Your task to perform on an android device: Go to settings Image 0: 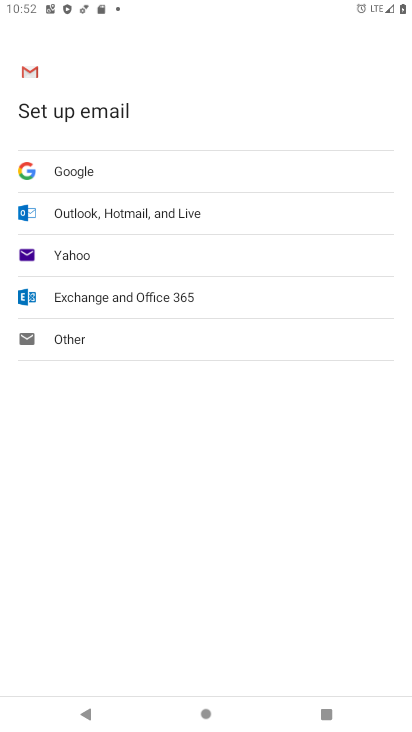
Step 0: press home button
Your task to perform on an android device: Go to settings Image 1: 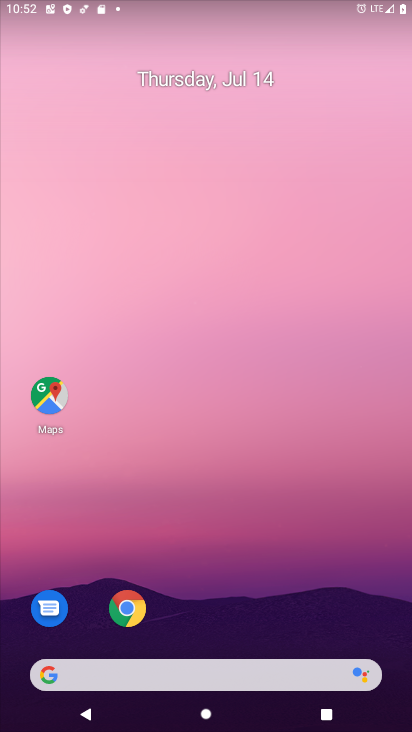
Step 1: drag from (241, 724) to (230, 353)
Your task to perform on an android device: Go to settings Image 2: 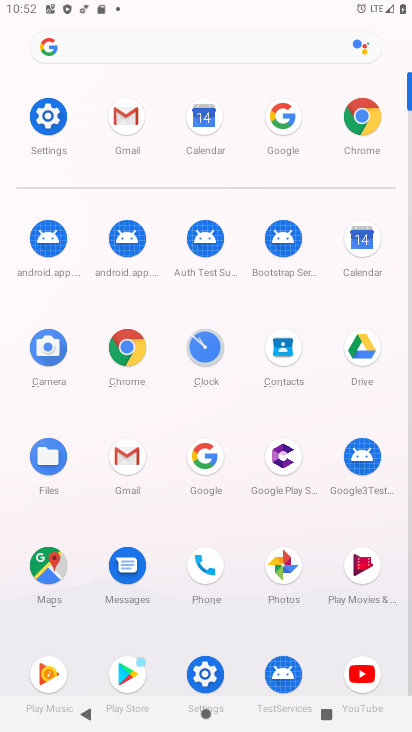
Step 2: click (44, 120)
Your task to perform on an android device: Go to settings Image 3: 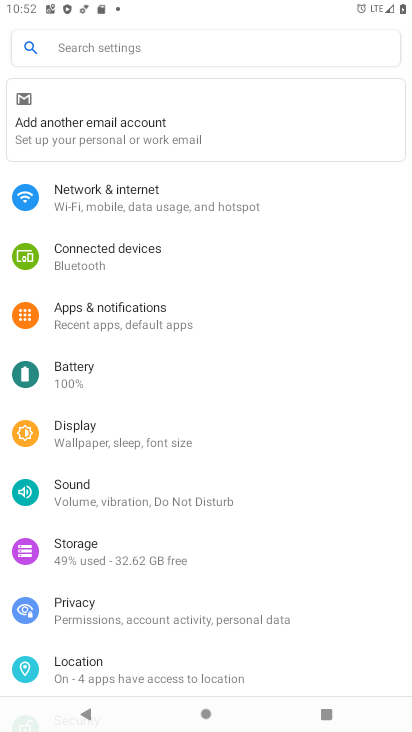
Step 3: task complete